Your task to perform on an android device: visit the assistant section in the google photos Image 0: 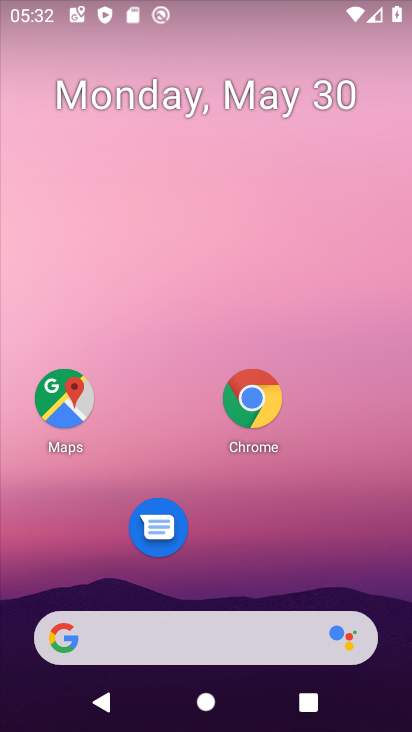
Step 0: drag from (234, 721) to (236, 16)
Your task to perform on an android device: visit the assistant section in the google photos Image 1: 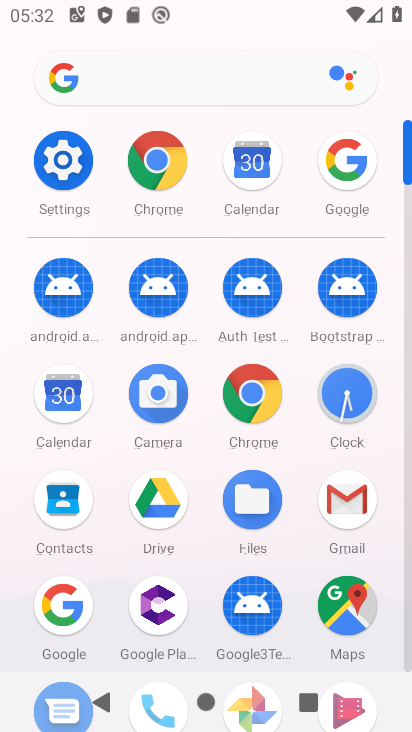
Step 1: click (302, 235)
Your task to perform on an android device: visit the assistant section in the google photos Image 2: 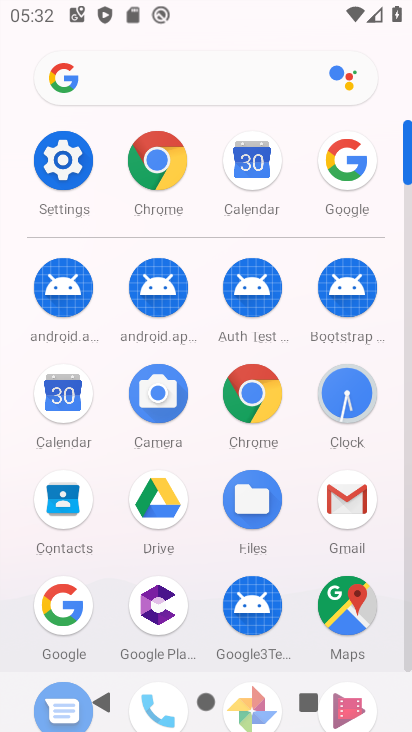
Step 2: drag from (297, 615) to (297, 87)
Your task to perform on an android device: visit the assistant section in the google photos Image 3: 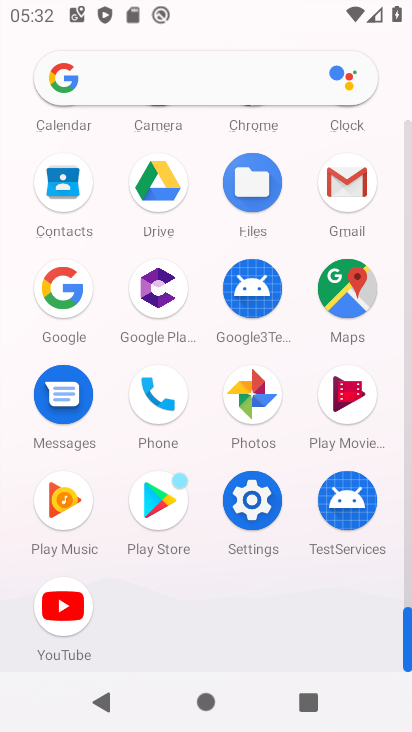
Step 3: click (247, 400)
Your task to perform on an android device: visit the assistant section in the google photos Image 4: 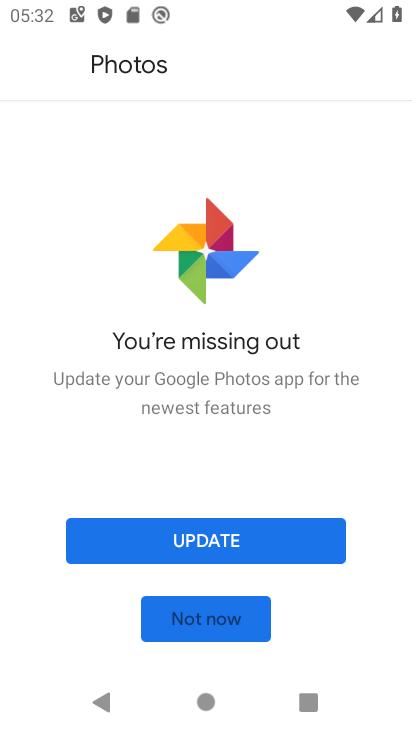
Step 4: task complete